Your task to perform on an android device: Add "bose soundsport free" to the cart on bestbuy.com Image 0: 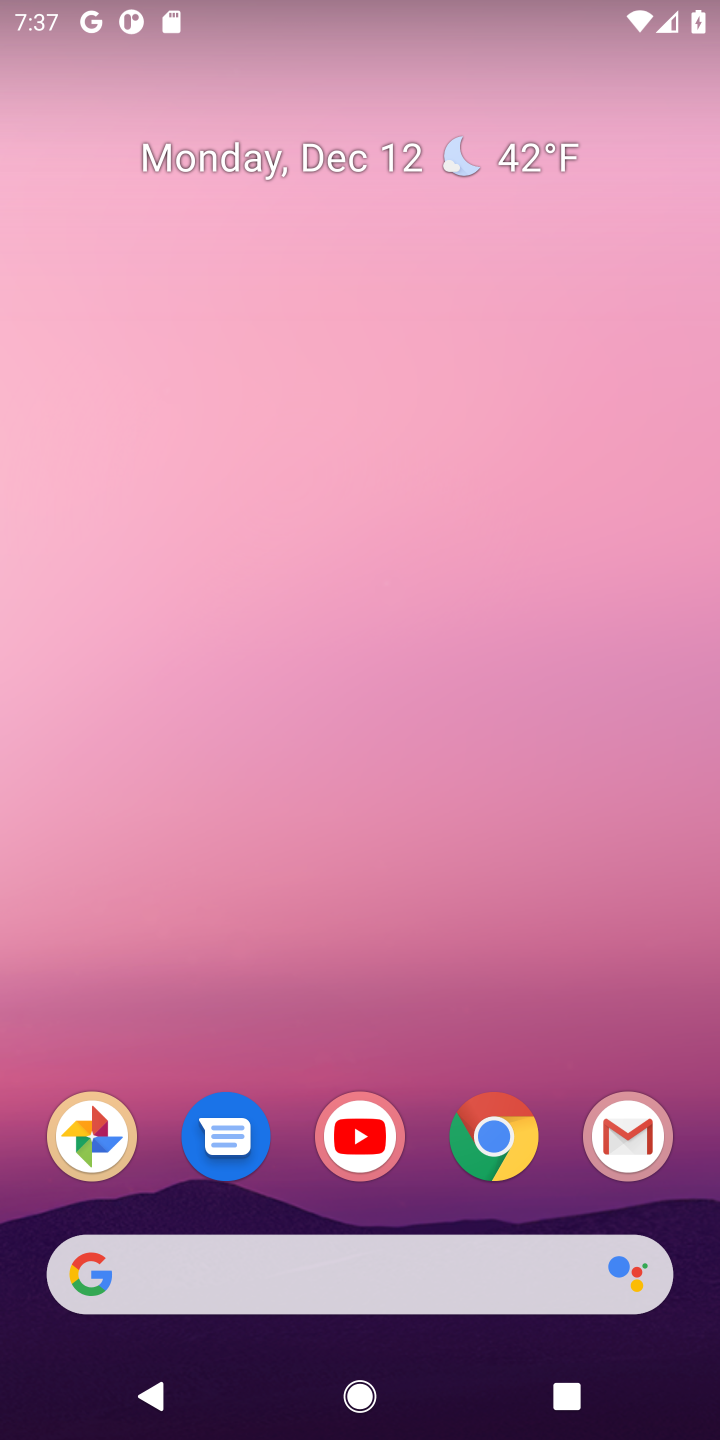
Step 0: click (504, 1135)
Your task to perform on an android device: Add "bose soundsport free" to the cart on bestbuy.com Image 1: 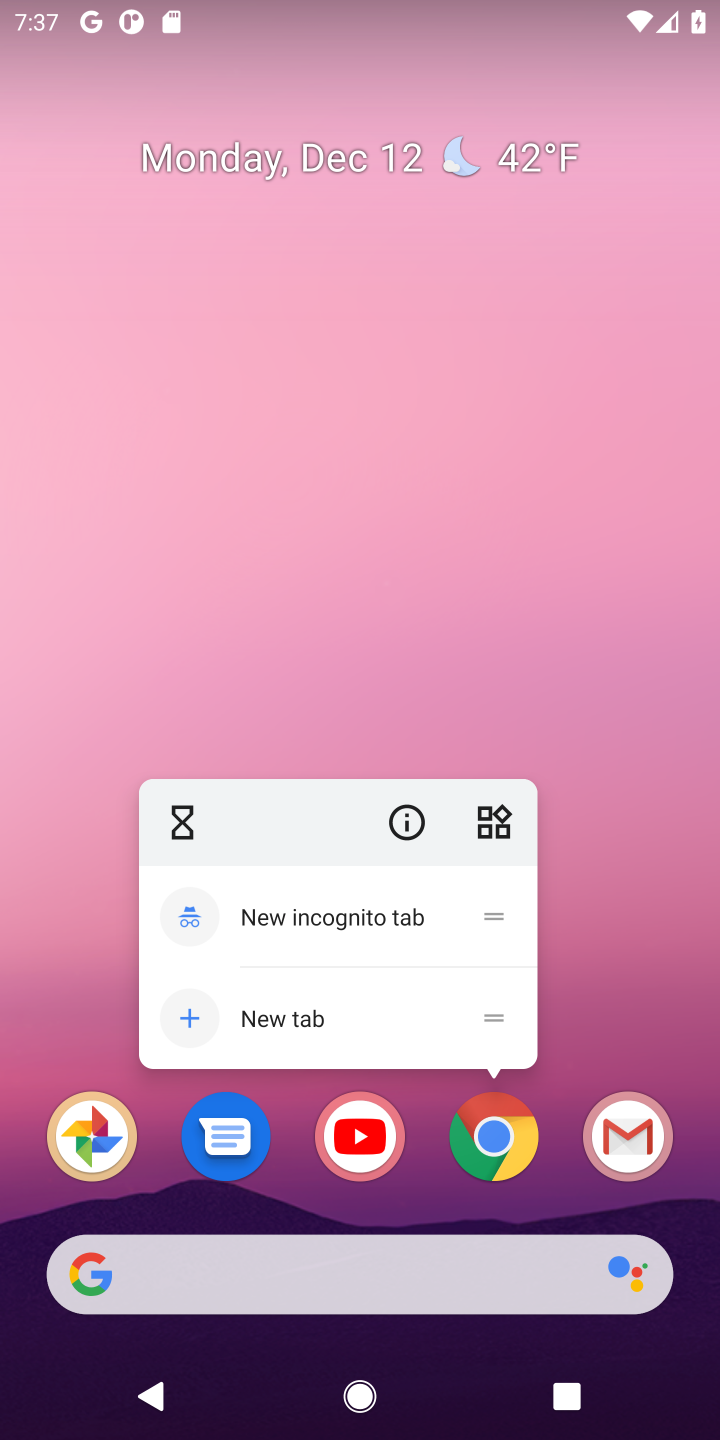
Step 1: click (502, 1139)
Your task to perform on an android device: Add "bose soundsport free" to the cart on bestbuy.com Image 2: 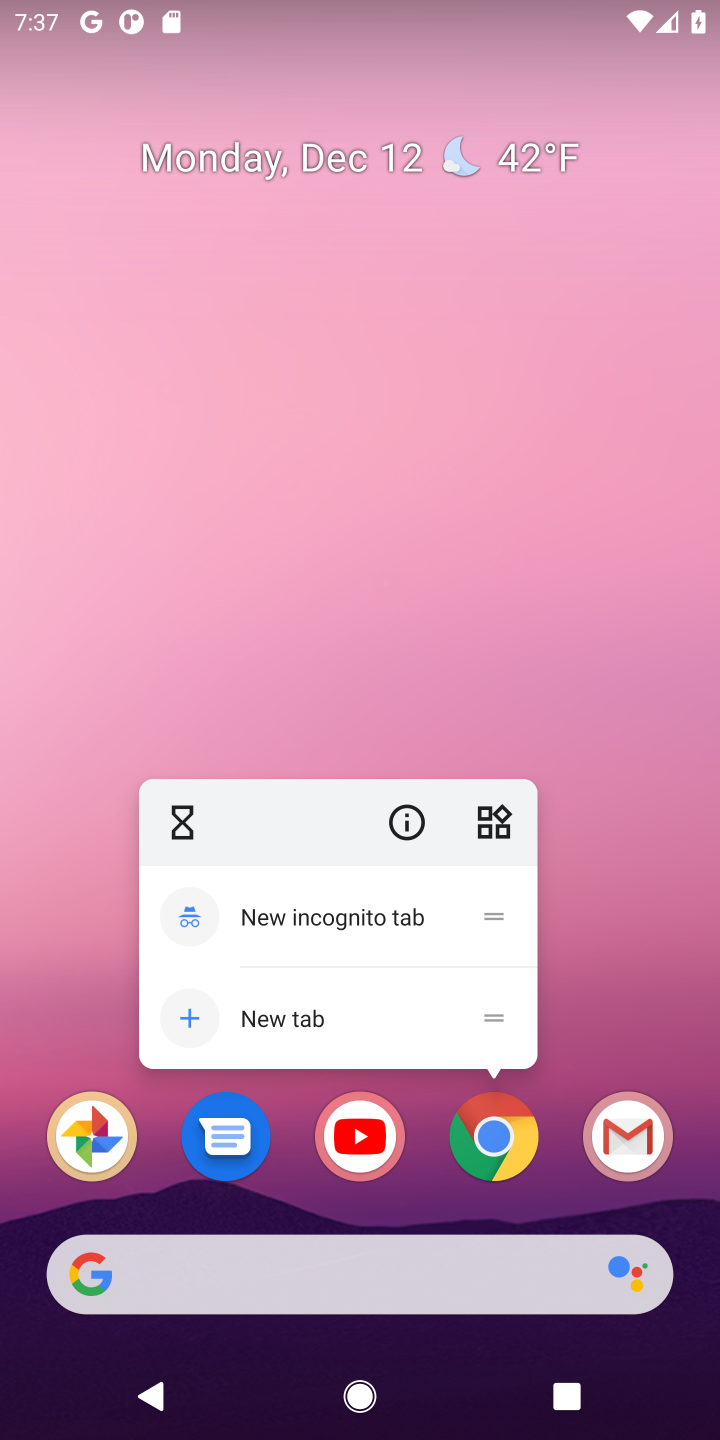
Step 2: click (490, 1145)
Your task to perform on an android device: Add "bose soundsport free" to the cart on bestbuy.com Image 3: 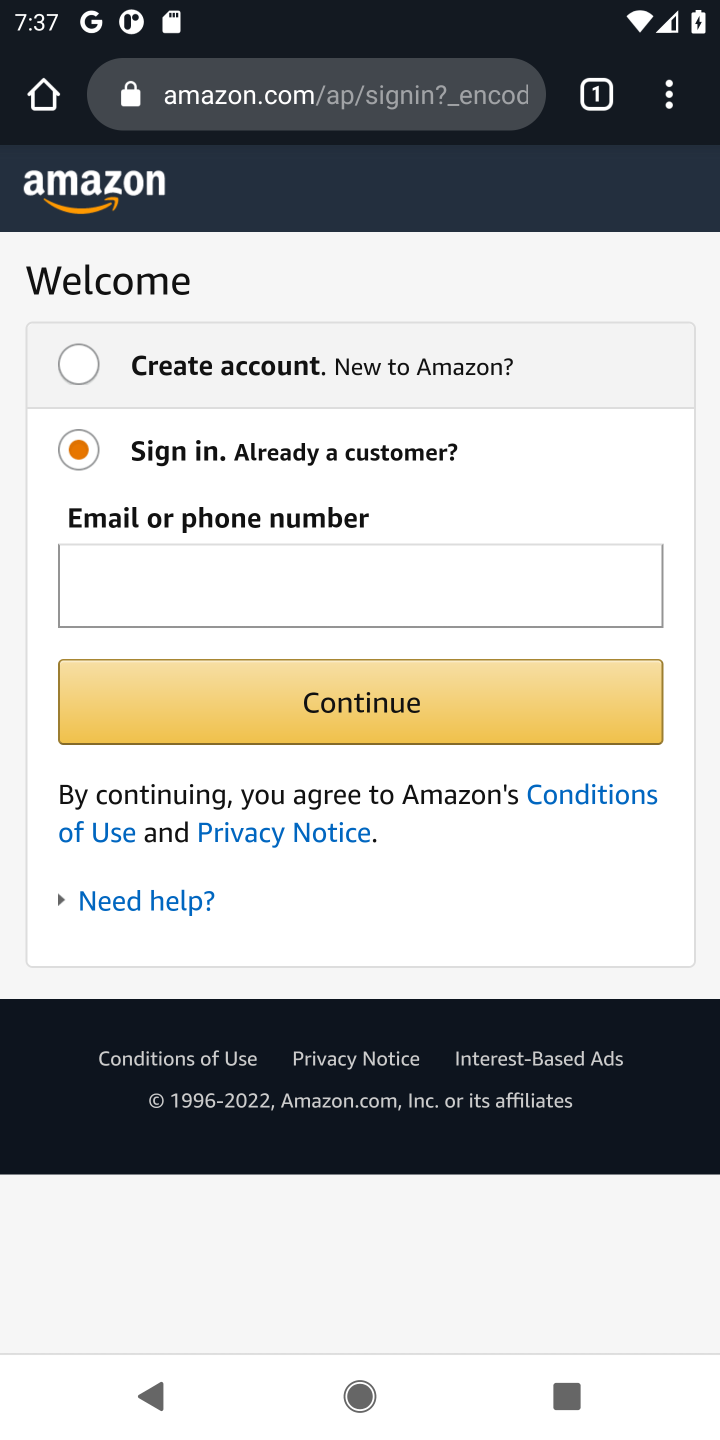
Step 3: click (287, 92)
Your task to perform on an android device: Add "bose soundsport free" to the cart on bestbuy.com Image 4: 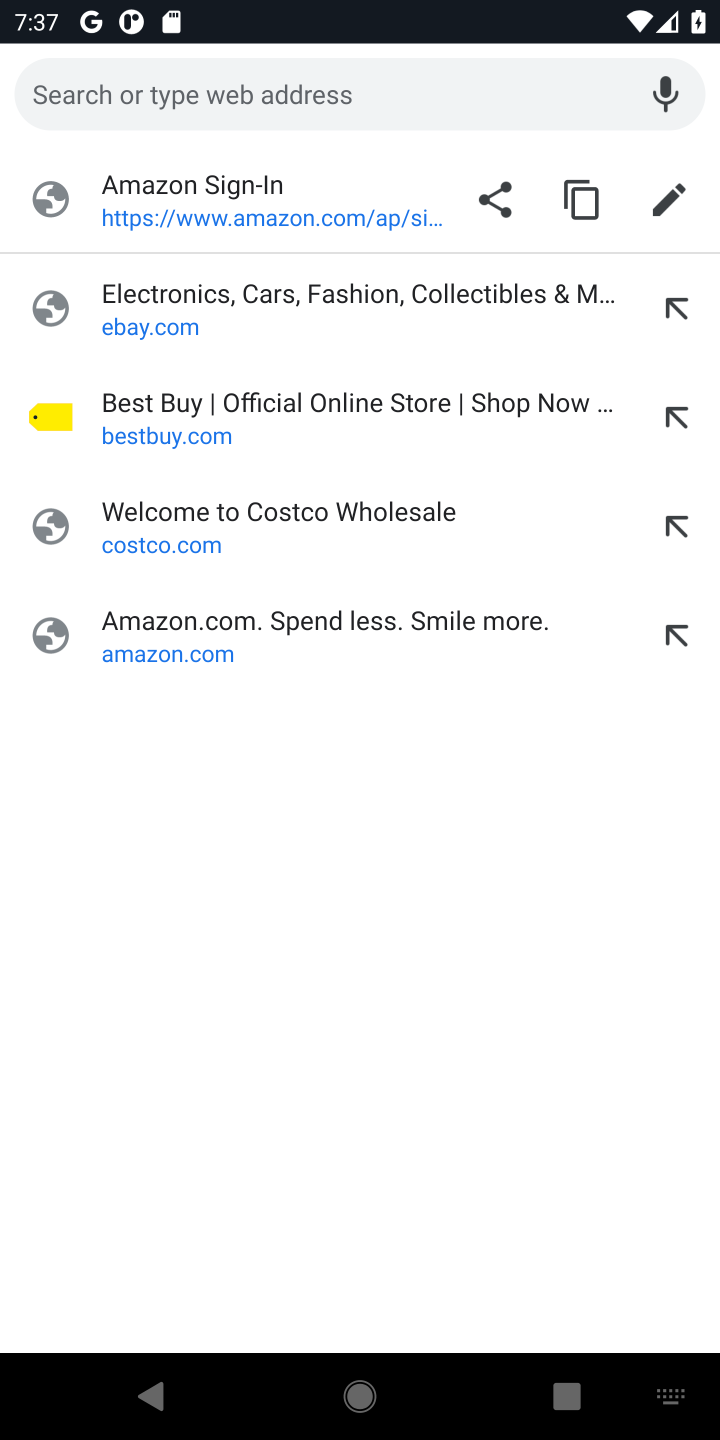
Step 4: click (153, 418)
Your task to perform on an android device: Add "bose soundsport free" to the cart on bestbuy.com Image 5: 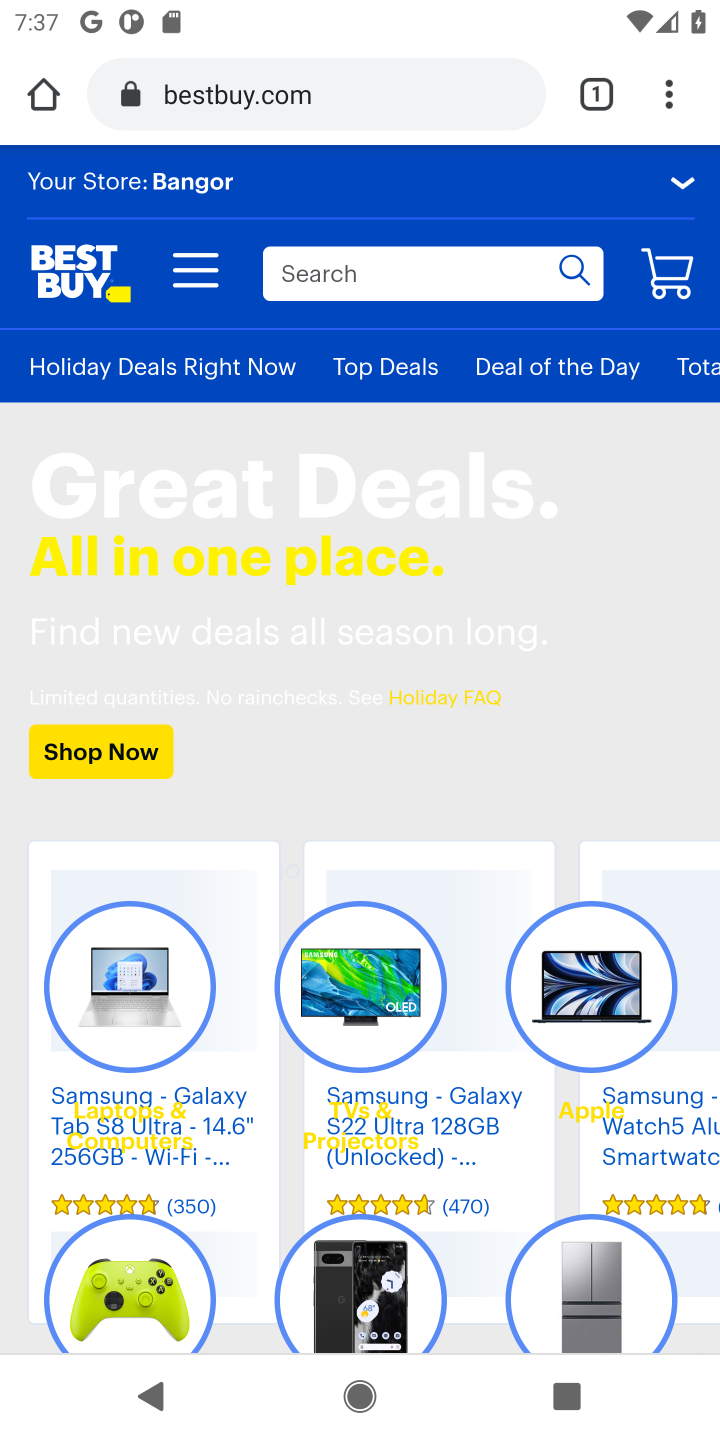
Step 5: click (353, 286)
Your task to perform on an android device: Add "bose soundsport free" to the cart on bestbuy.com Image 6: 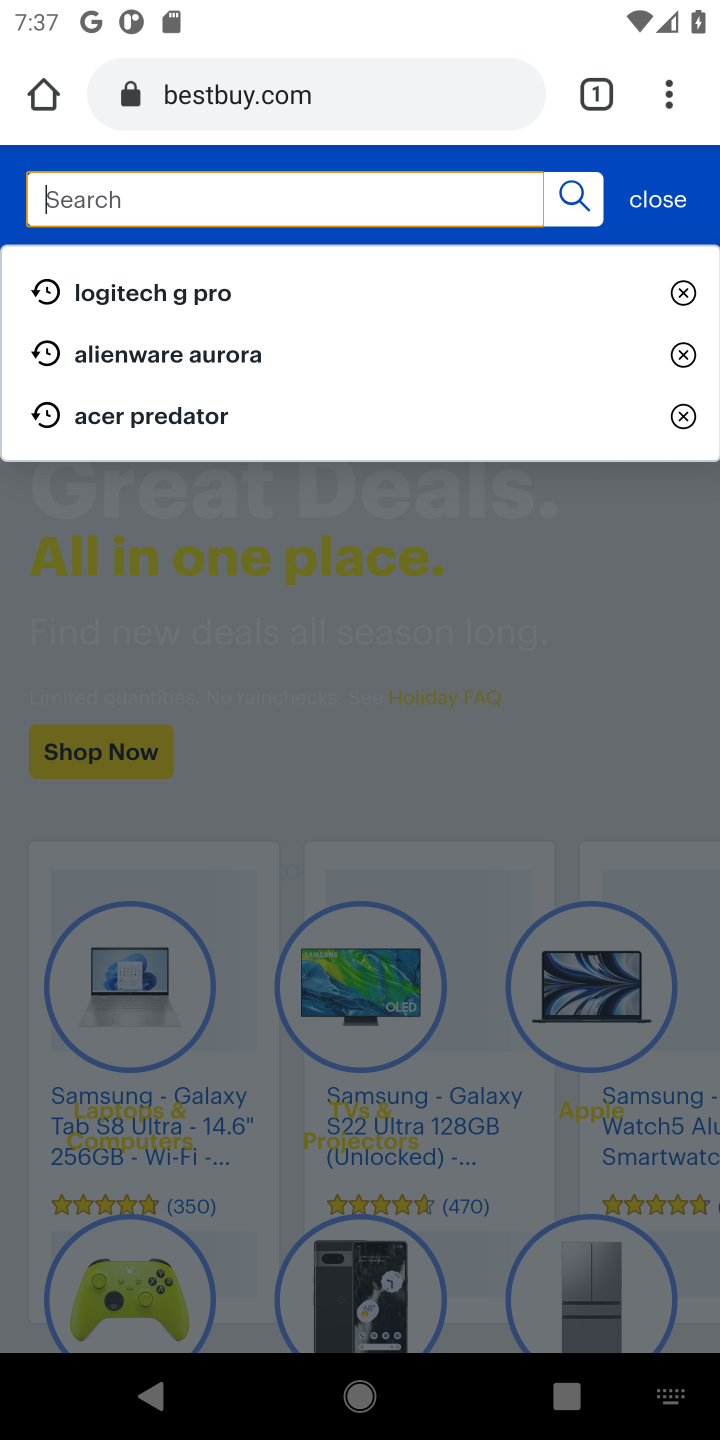
Step 6: type "bose soundsport free"
Your task to perform on an android device: Add "bose soundsport free" to the cart on bestbuy.com Image 7: 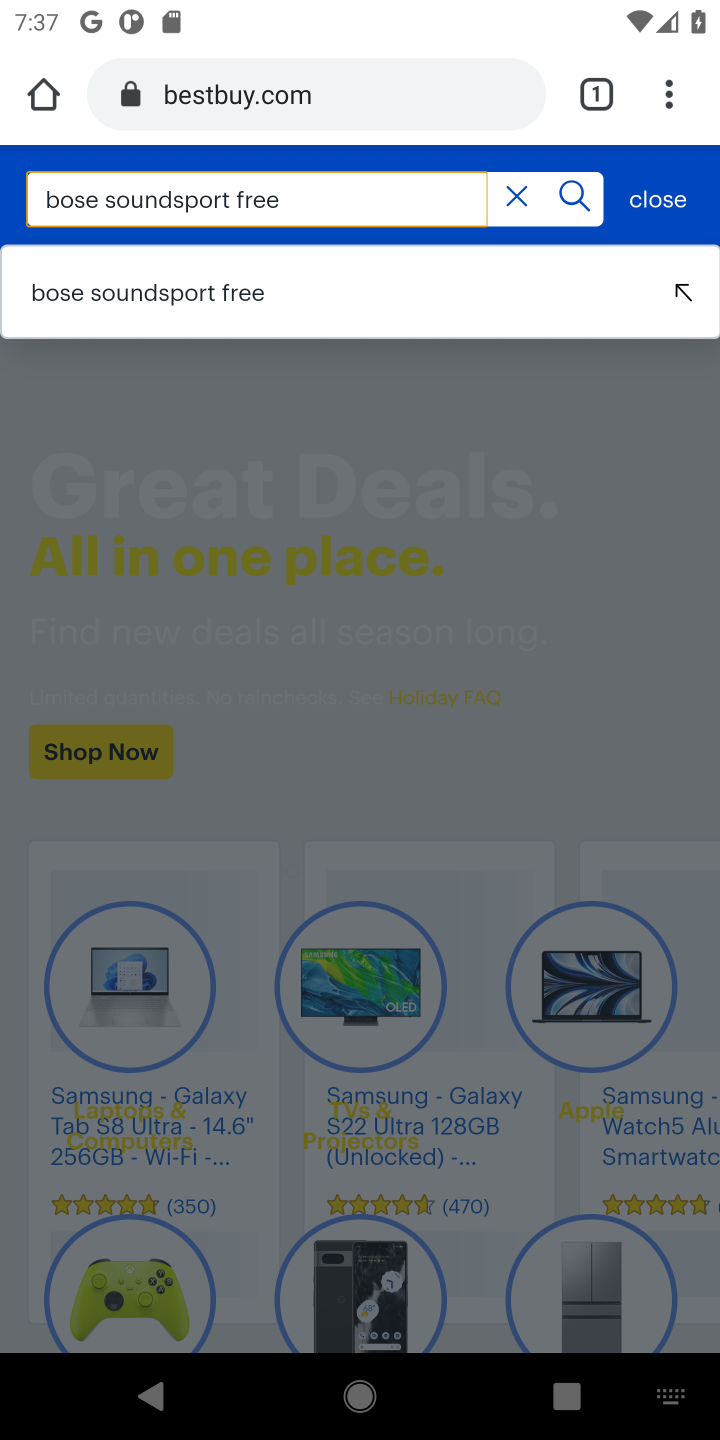
Step 7: click (251, 301)
Your task to perform on an android device: Add "bose soundsport free" to the cart on bestbuy.com Image 8: 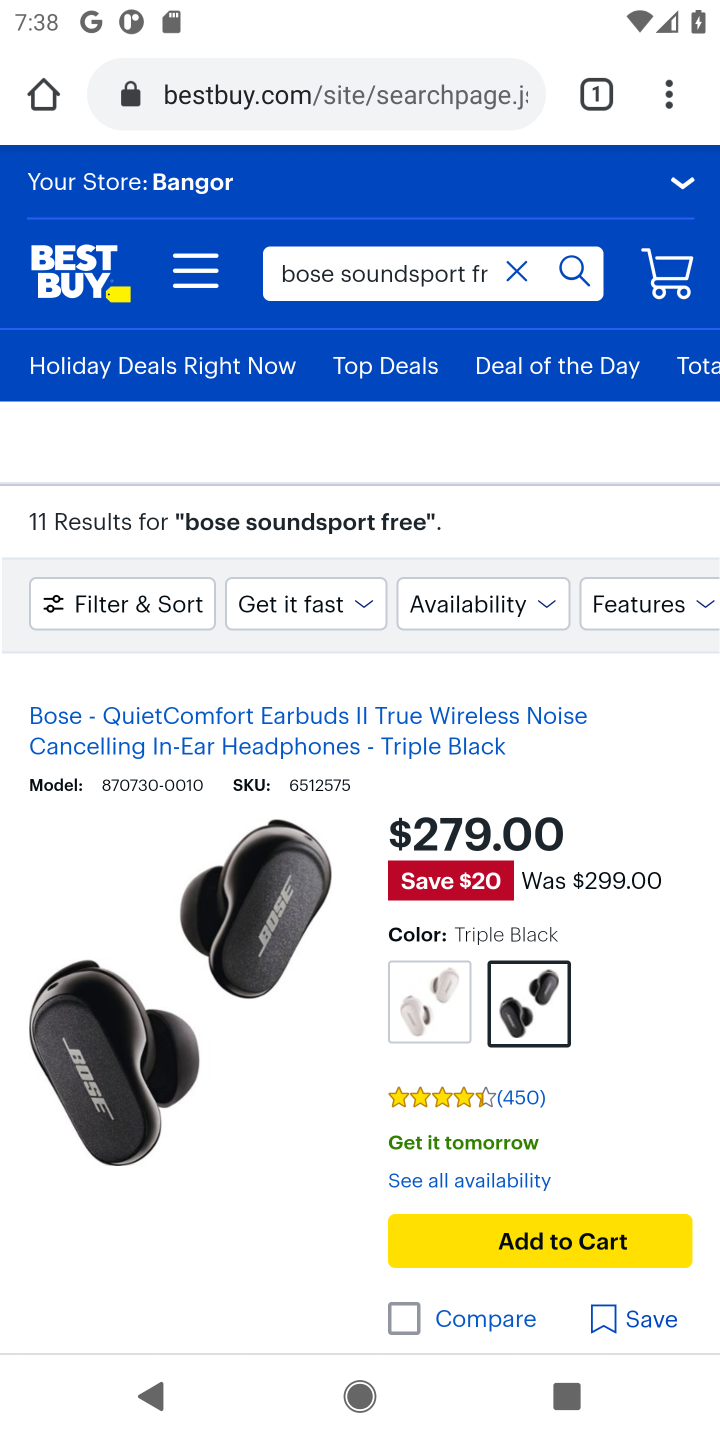
Step 8: task complete